Your task to perform on an android device: turn off javascript in the chrome app Image 0: 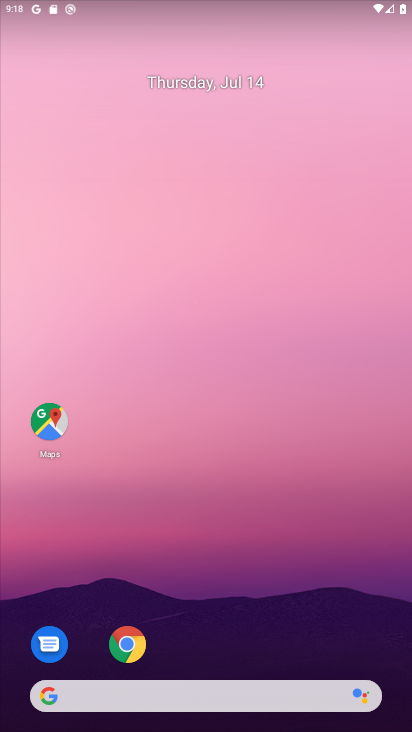
Step 0: click (138, 658)
Your task to perform on an android device: turn off javascript in the chrome app Image 1: 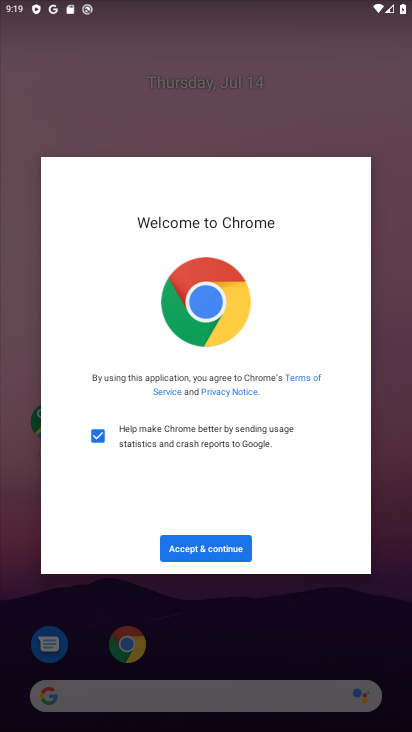
Step 1: click (220, 559)
Your task to perform on an android device: turn off javascript in the chrome app Image 2: 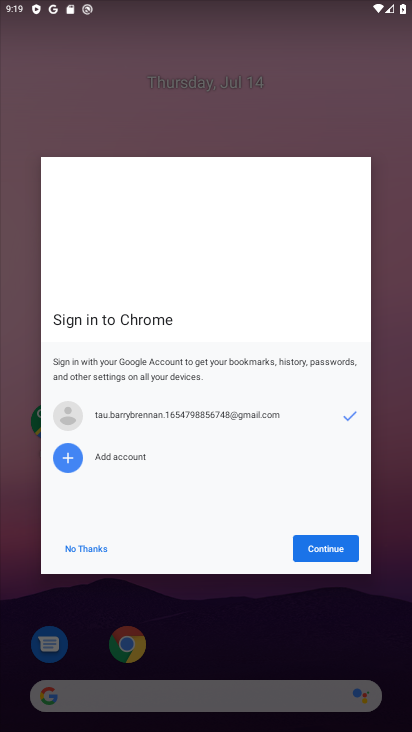
Step 2: click (299, 552)
Your task to perform on an android device: turn off javascript in the chrome app Image 3: 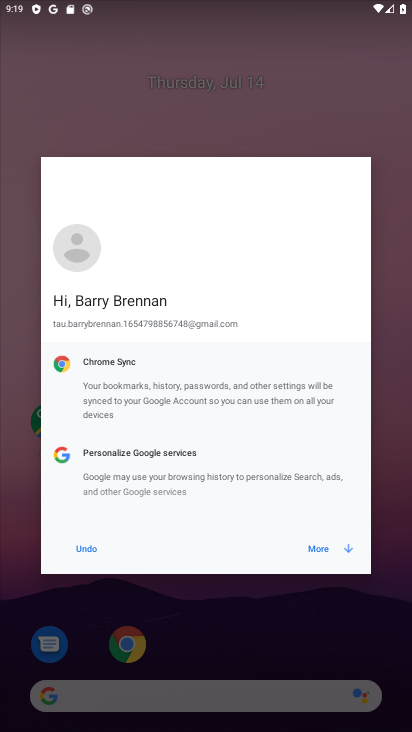
Step 3: click (312, 547)
Your task to perform on an android device: turn off javascript in the chrome app Image 4: 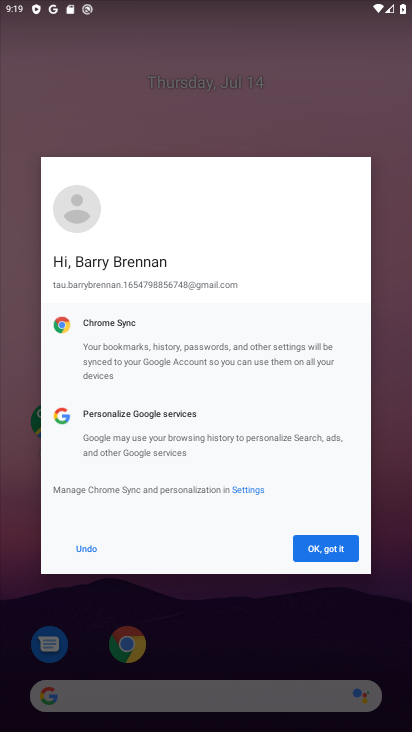
Step 4: click (312, 548)
Your task to perform on an android device: turn off javascript in the chrome app Image 5: 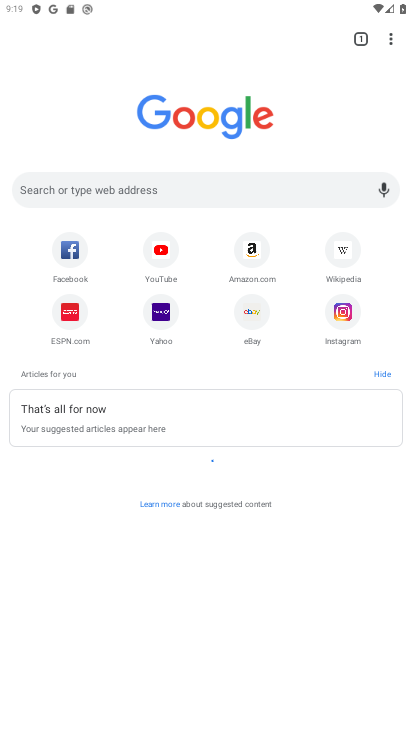
Step 5: drag from (391, 39) to (271, 322)
Your task to perform on an android device: turn off javascript in the chrome app Image 6: 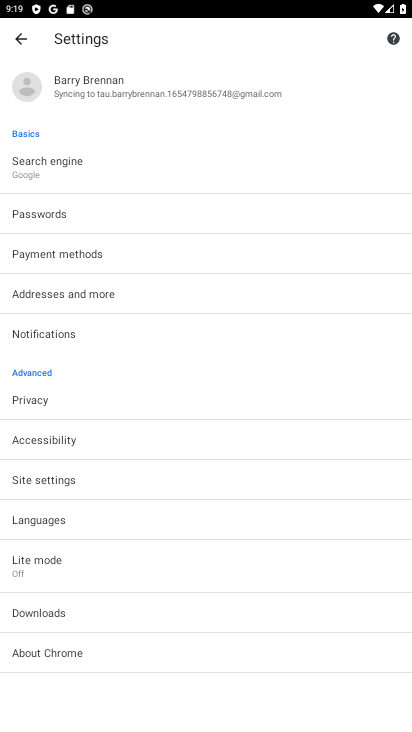
Step 6: click (80, 479)
Your task to perform on an android device: turn off javascript in the chrome app Image 7: 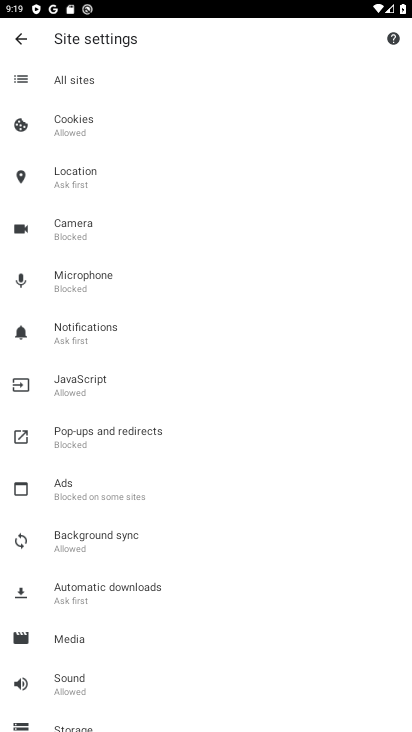
Step 7: click (108, 383)
Your task to perform on an android device: turn off javascript in the chrome app Image 8: 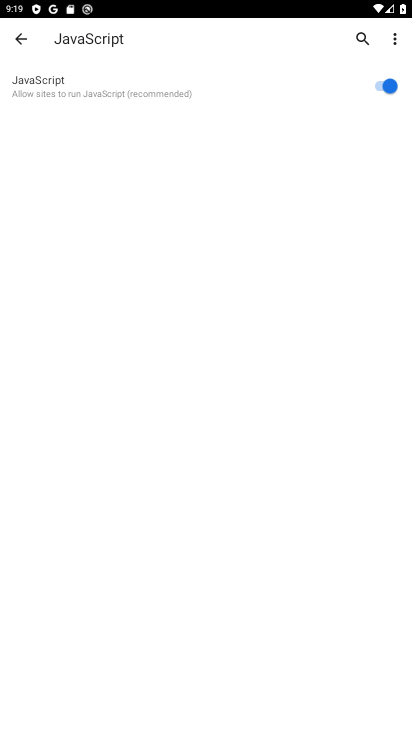
Step 8: click (379, 84)
Your task to perform on an android device: turn off javascript in the chrome app Image 9: 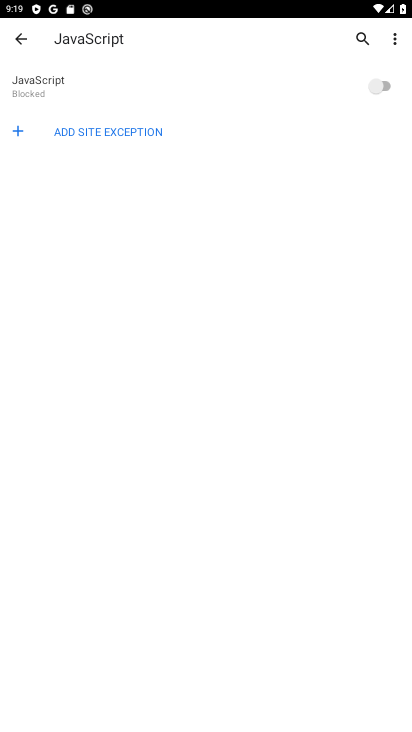
Step 9: task complete